Your task to perform on an android device: Check the news Image 0: 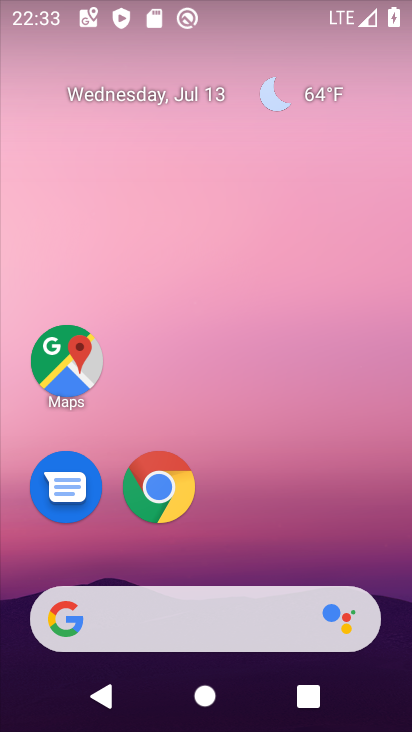
Step 0: click (229, 634)
Your task to perform on an android device: Check the news Image 1: 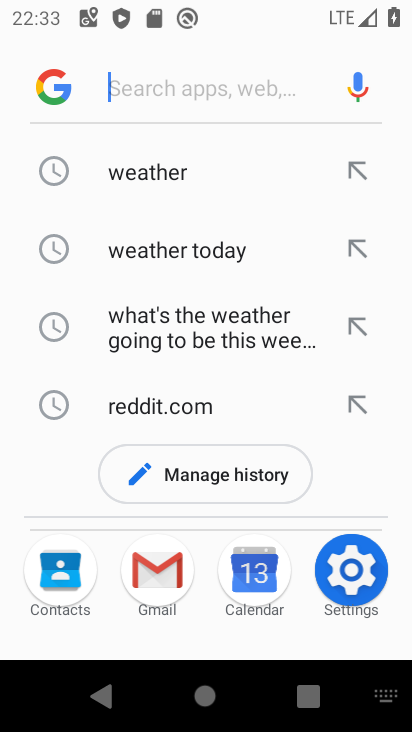
Step 1: click (147, 95)
Your task to perform on an android device: Check the news Image 2: 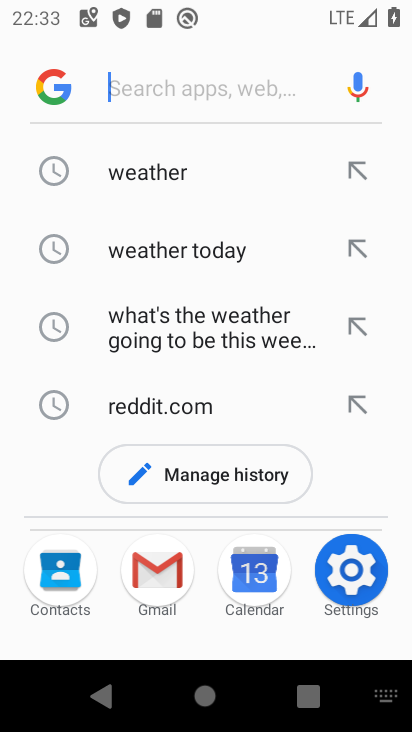
Step 2: type "news"
Your task to perform on an android device: Check the news Image 3: 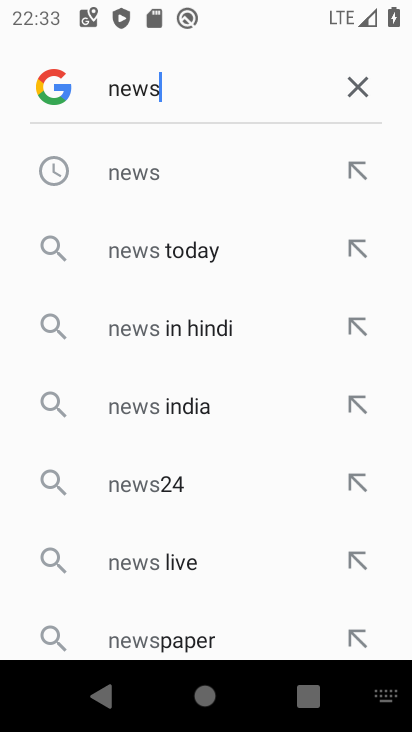
Step 3: click (155, 174)
Your task to perform on an android device: Check the news Image 4: 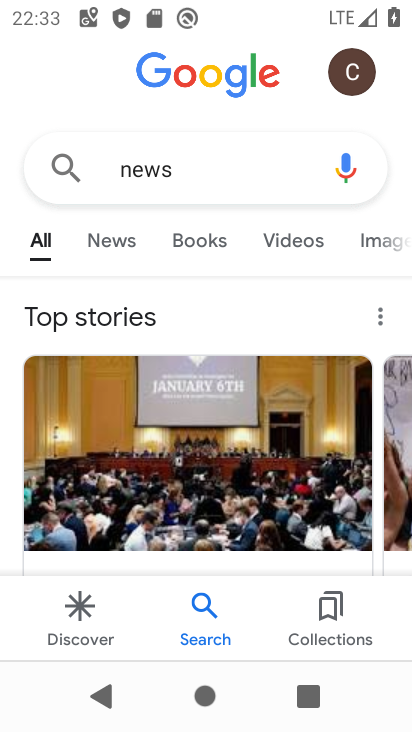
Step 4: task complete